Your task to perform on an android device: Go to Amazon Image 0: 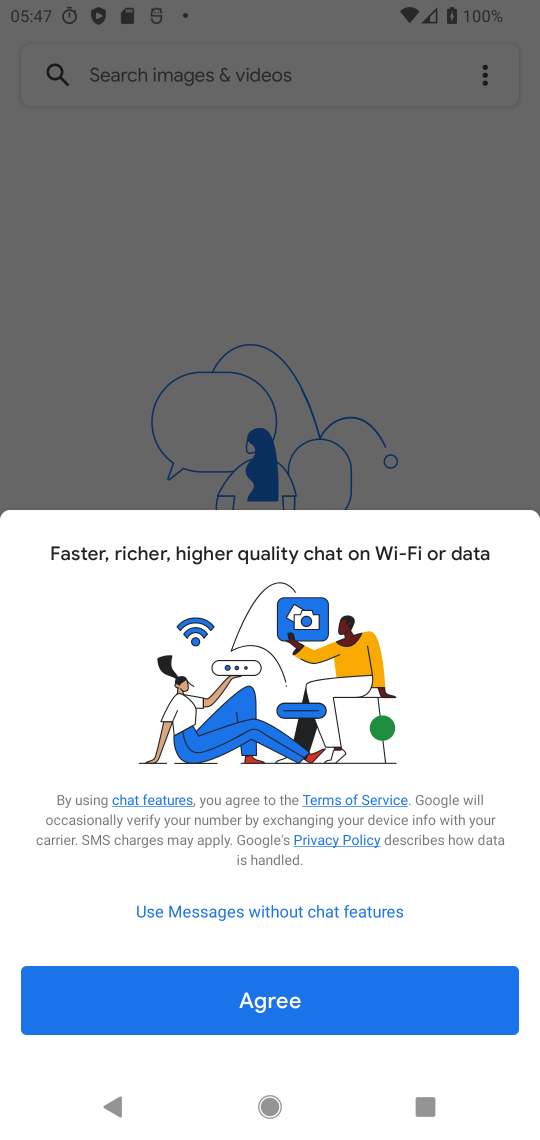
Step 0: press home button
Your task to perform on an android device: Go to Amazon Image 1: 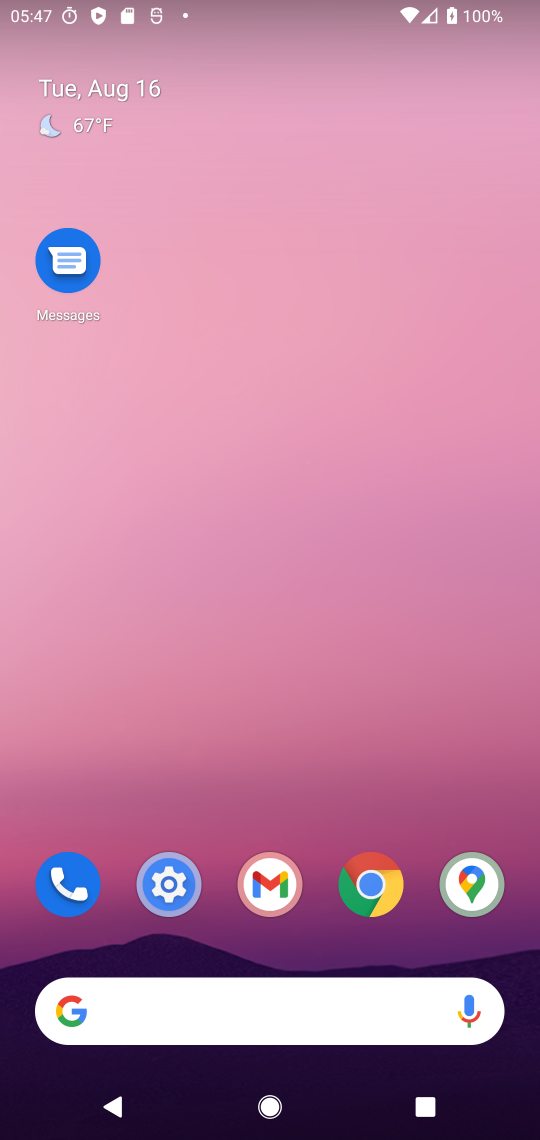
Step 1: click (177, 1010)
Your task to perform on an android device: Go to Amazon Image 2: 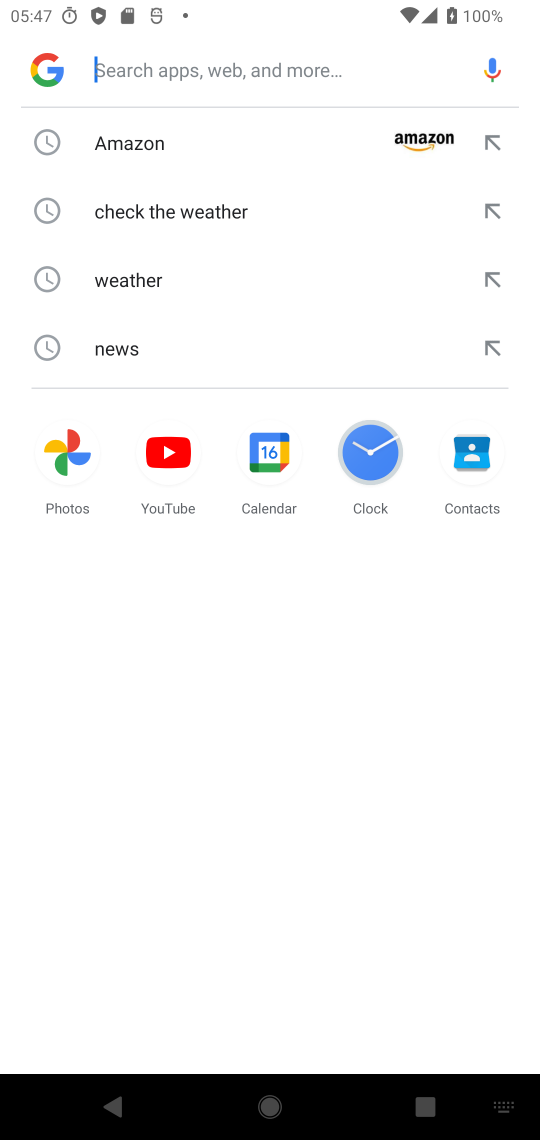
Step 2: click (169, 137)
Your task to perform on an android device: Go to Amazon Image 3: 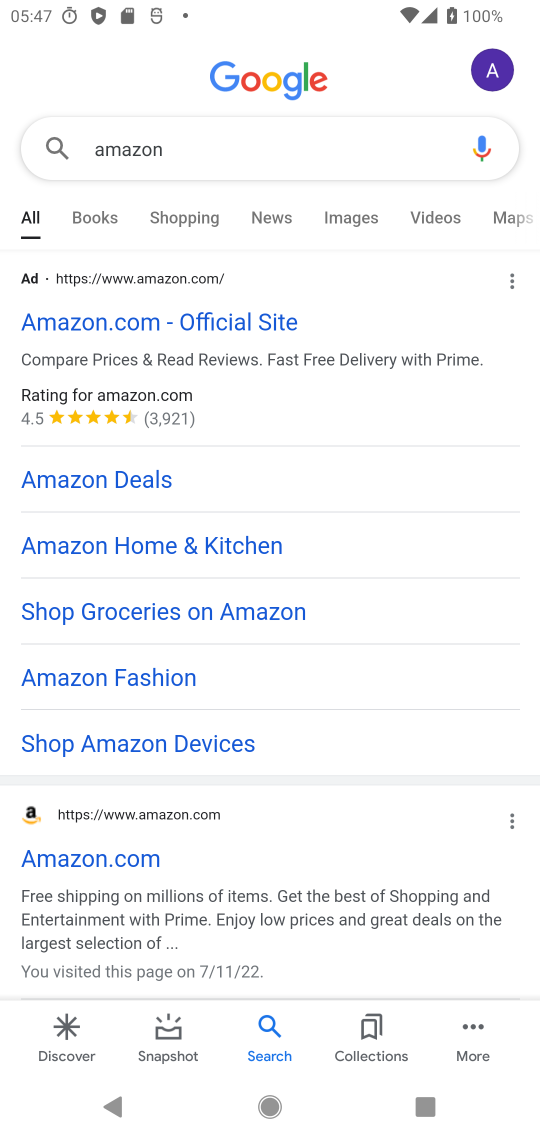
Step 3: task complete